Your task to perform on an android device: choose inbox layout in the gmail app Image 0: 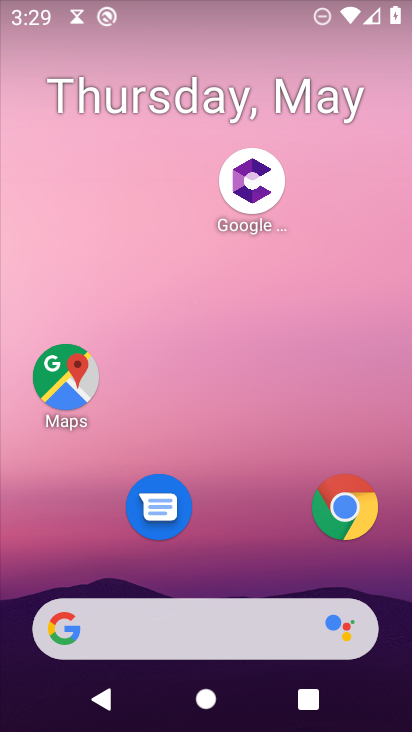
Step 0: press home button
Your task to perform on an android device: choose inbox layout in the gmail app Image 1: 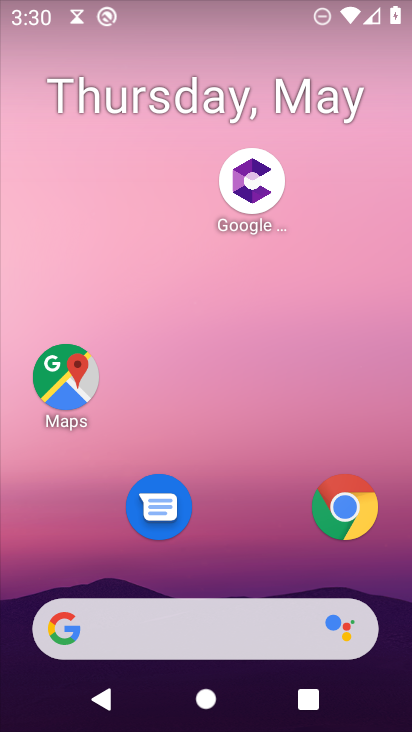
Step 1: drag from (262, 581) to (213, 229)
Your task to perform on an android device: choose inbox layout in the gmail app Image 2: 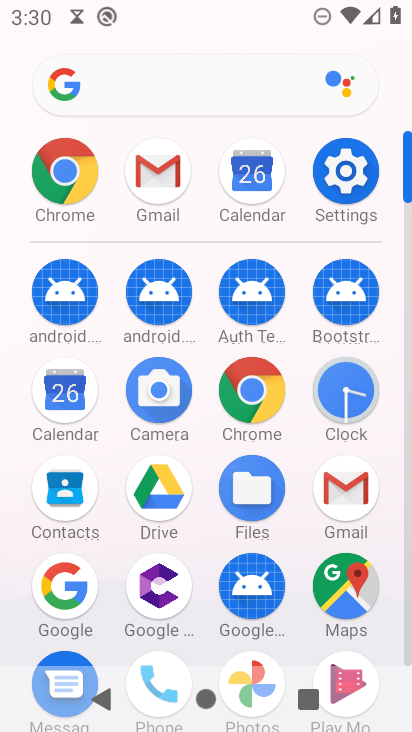
Step 2: click (169, 198)
Your task to perform on an android device: choose inbox layout in the gmail app Image 3: 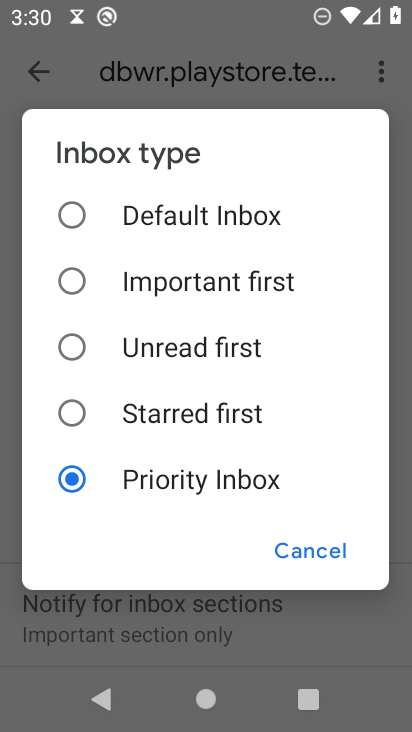
Step 3: click (314, 564)
Your task to perform on an android device: choose inbox layout in the gmail app Image 4: 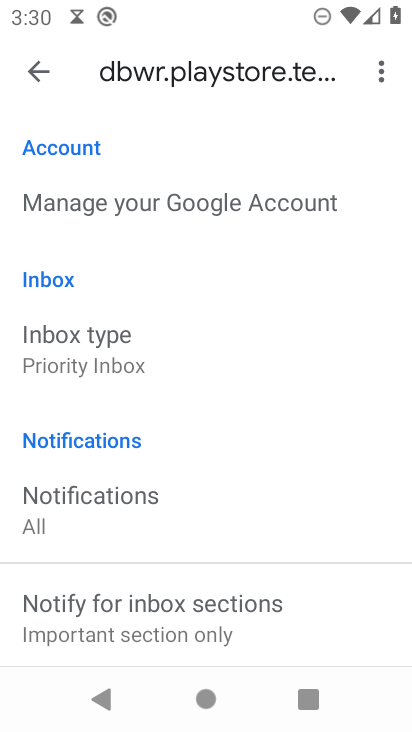
Step 4: task complete